Your task to perform on an android device: open chrome privacy settings Image 0: 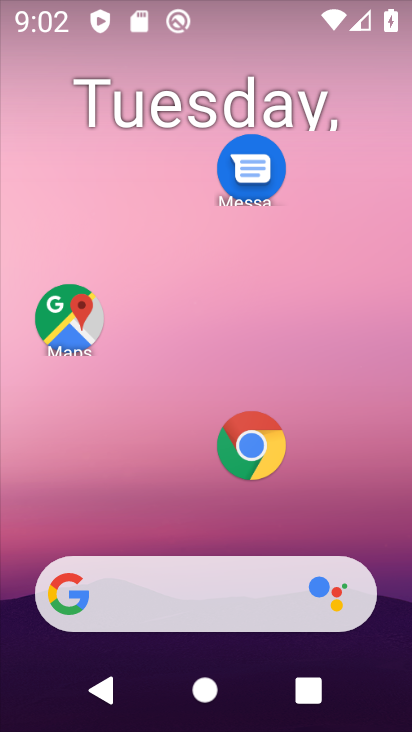
Step 0: drag from (193, 497) to (221, 50)
Your task to perform on an android device: open chrome privacy settings Image 1: 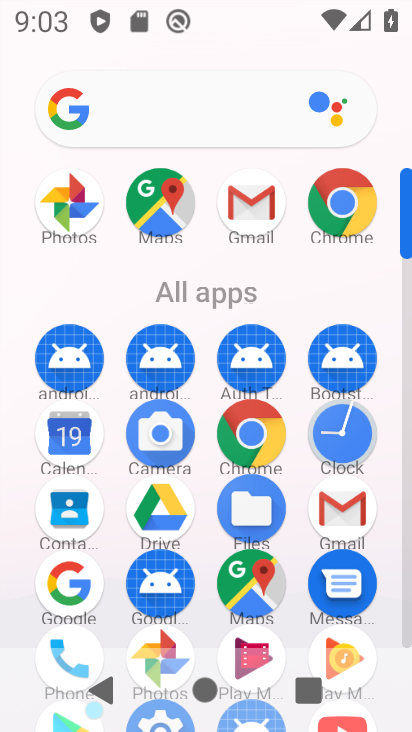
Step 1: click (339, 200)
Your task to perform on an android device: open chrome privacy settings Image 2: 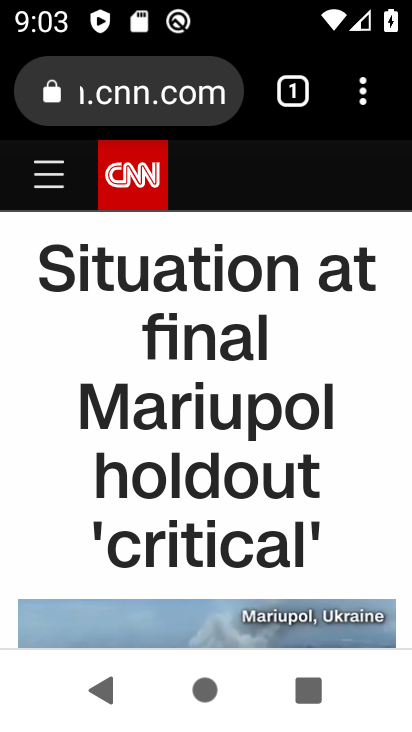
Step 2: drag from (363, 85) to (173, 466)
Your task to perform on an android device: open chrome privacy settings Image 3: 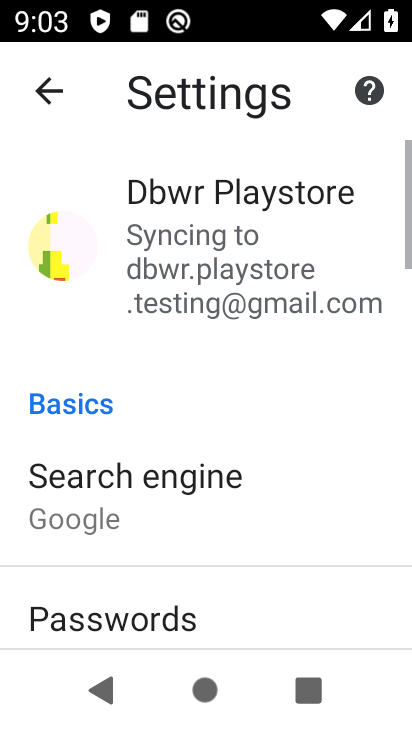
Step 3: drag from (144, 617) to (268, 53)
Your task to perform on an android device: open chrome privacy settings Image 4: 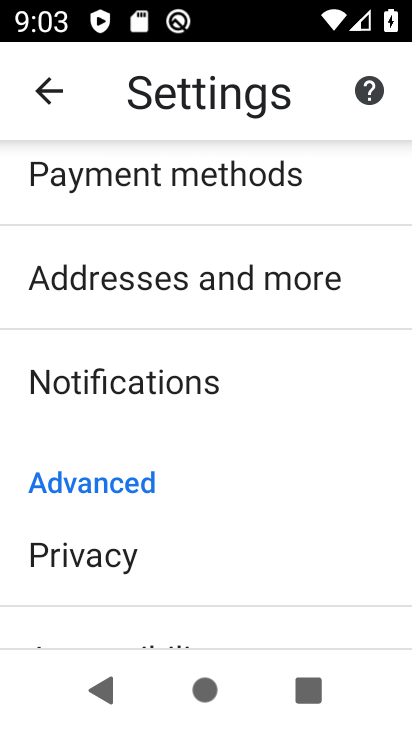
Step 4: click (125, 548)
Your task to perform on an android device: open chrome privacy settings Image 5: 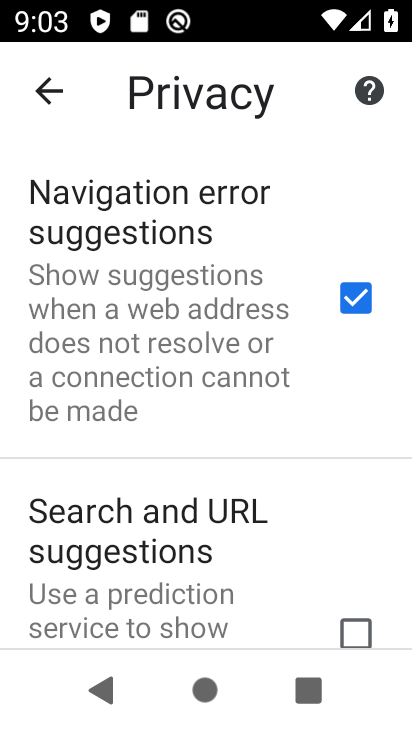
Step 5: task complete